Your task to perform on an android device: open app "PlayWell" (install if not already installed) Image 0: 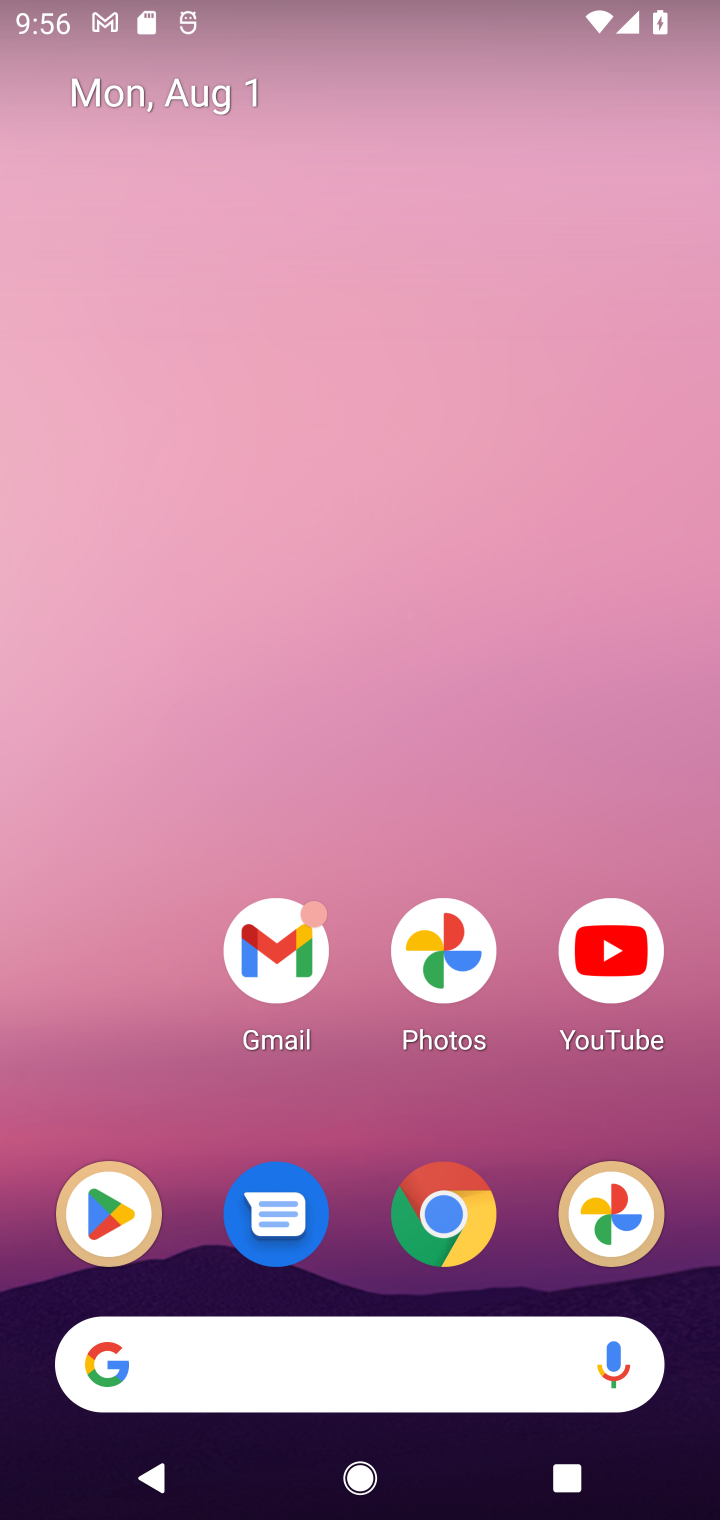
Step 0: press home button
Your task to perform on an android device: open app "PlayWell" (install if not already installed) Image 1: 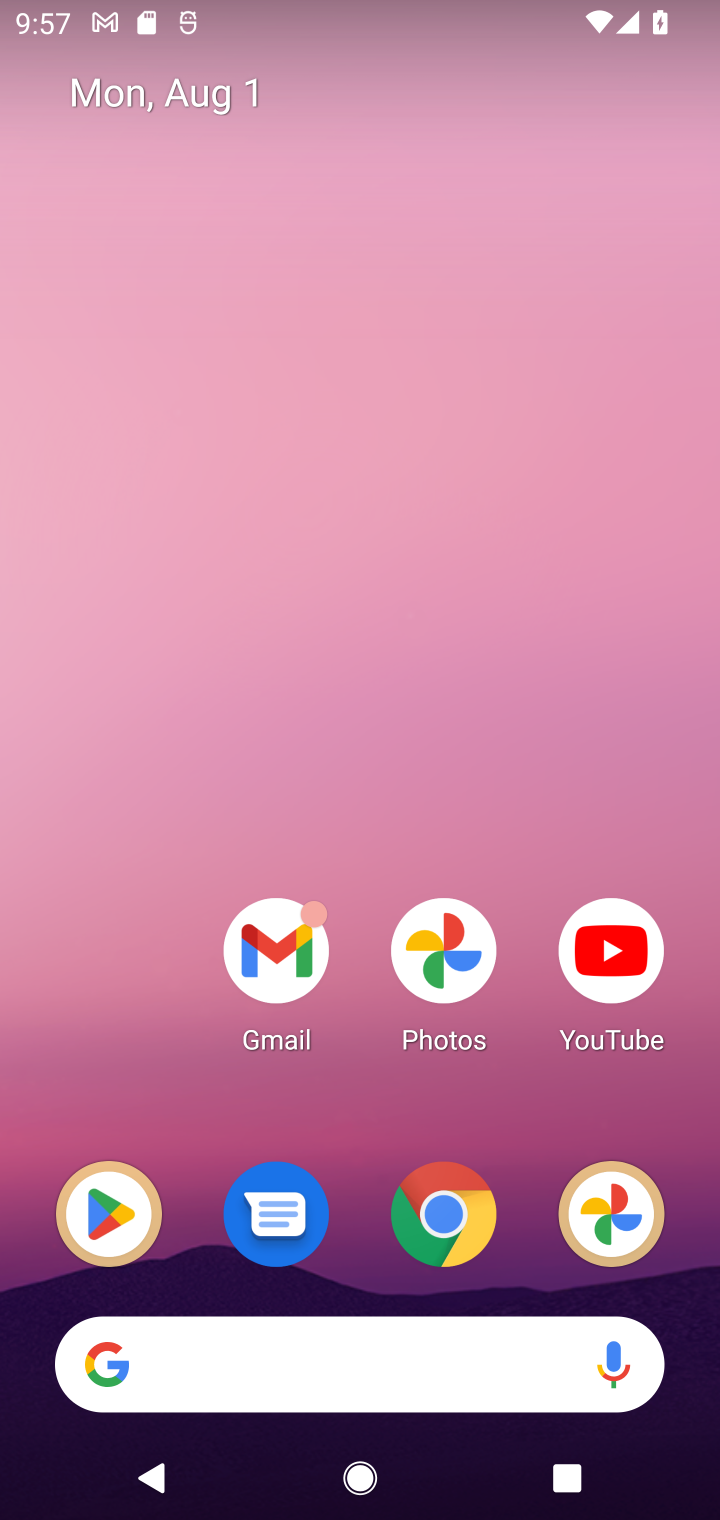
Step 1: click (86, 1213)
Your task to perform on an android device: open app "PlayWell" (install if not already installed) Image 2: 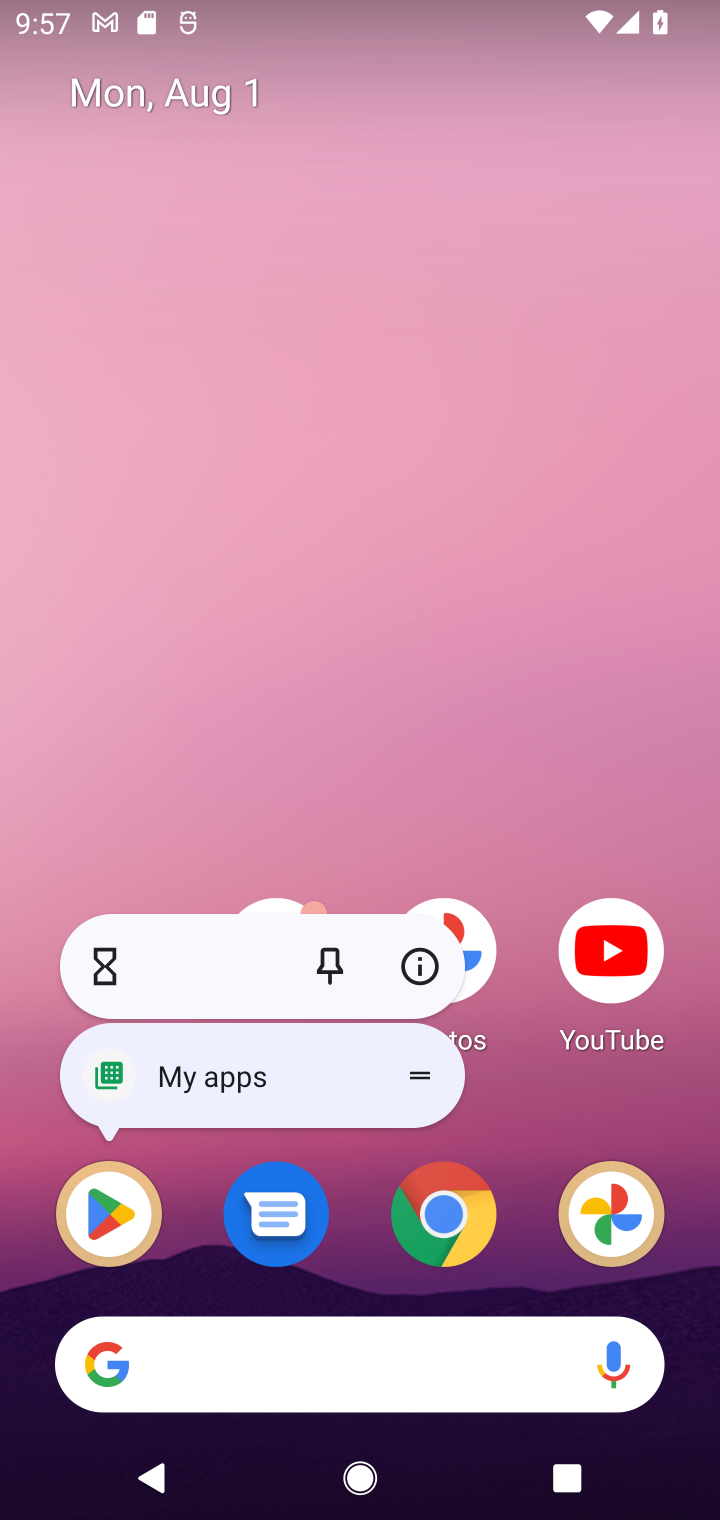
Step 2: click (97, 1213)
Your task to perform on an android device: open app "PlayWell" (install if not already installed) Image 3: 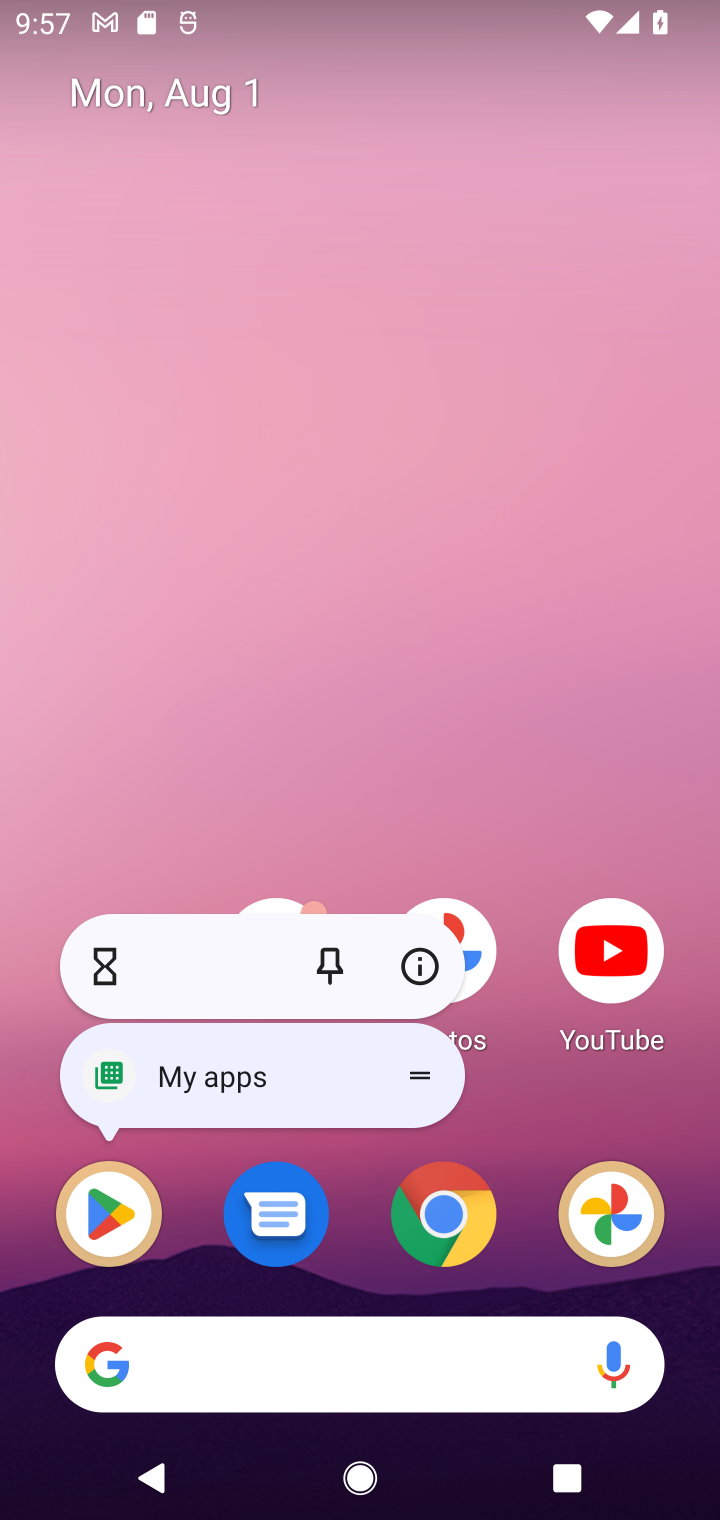
Step 3: click (99, 1213)
Your task to perform on an android device: open app "PlayWell" (install if not already installed) Image 4: 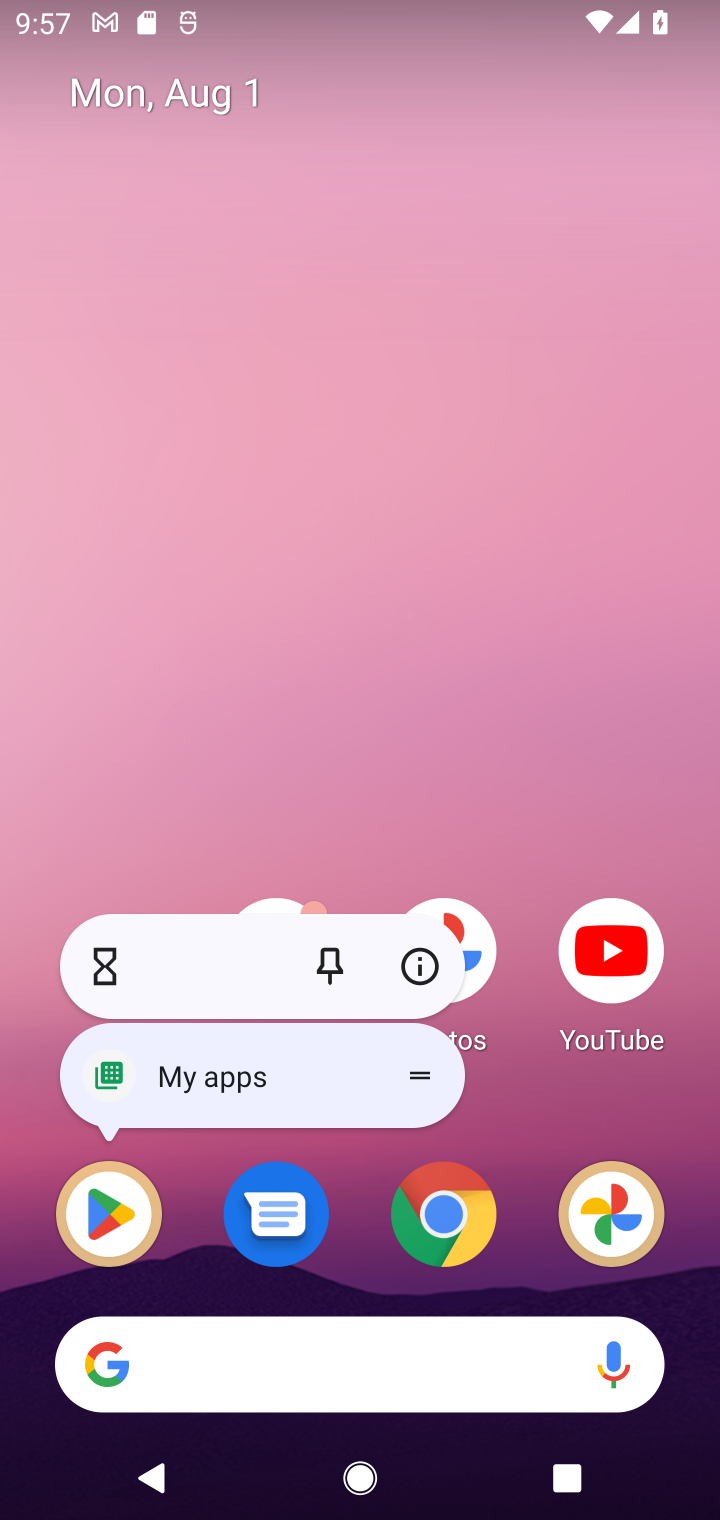
Step 4: click (97, 1215)
Your task to perform on an android device: open app "PlayWell" (install if not already installed) Image 5: 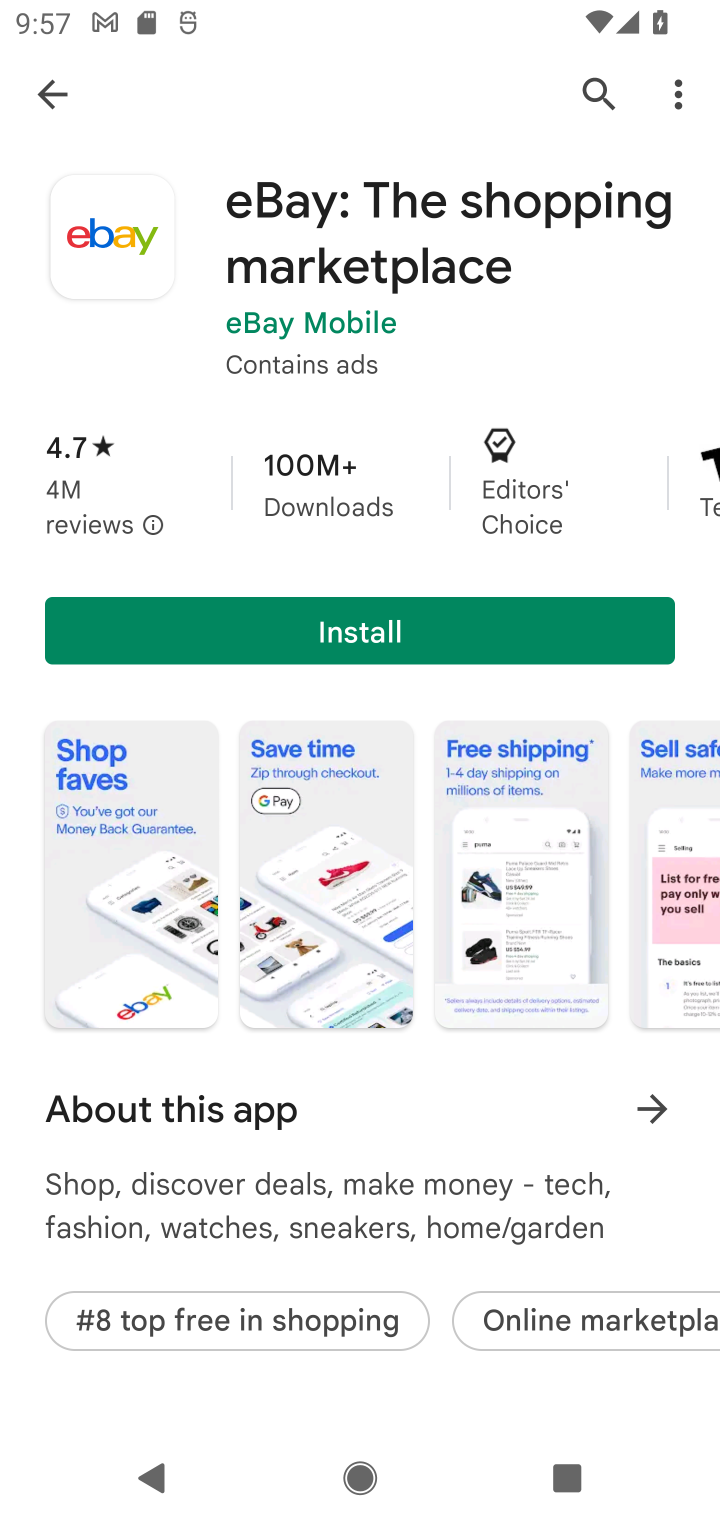
Step 5: click (594, 91)
Your task to perform on an android device: open app "PlayWell" (install if not already installed) Image 6: 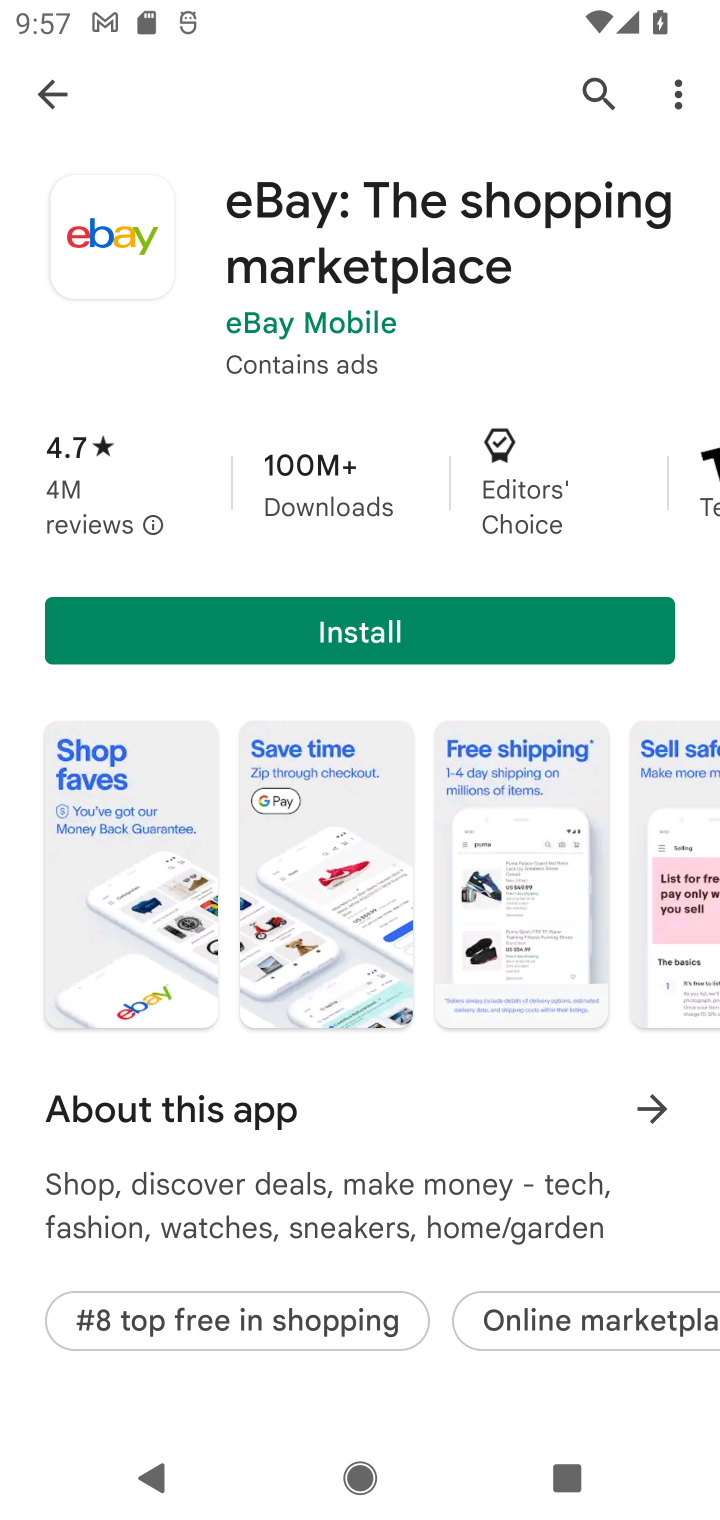
Step 6: type "PlayWell"
Your task to perform on an android device: open app "PlayWell" (install if not already installed) Image 7: 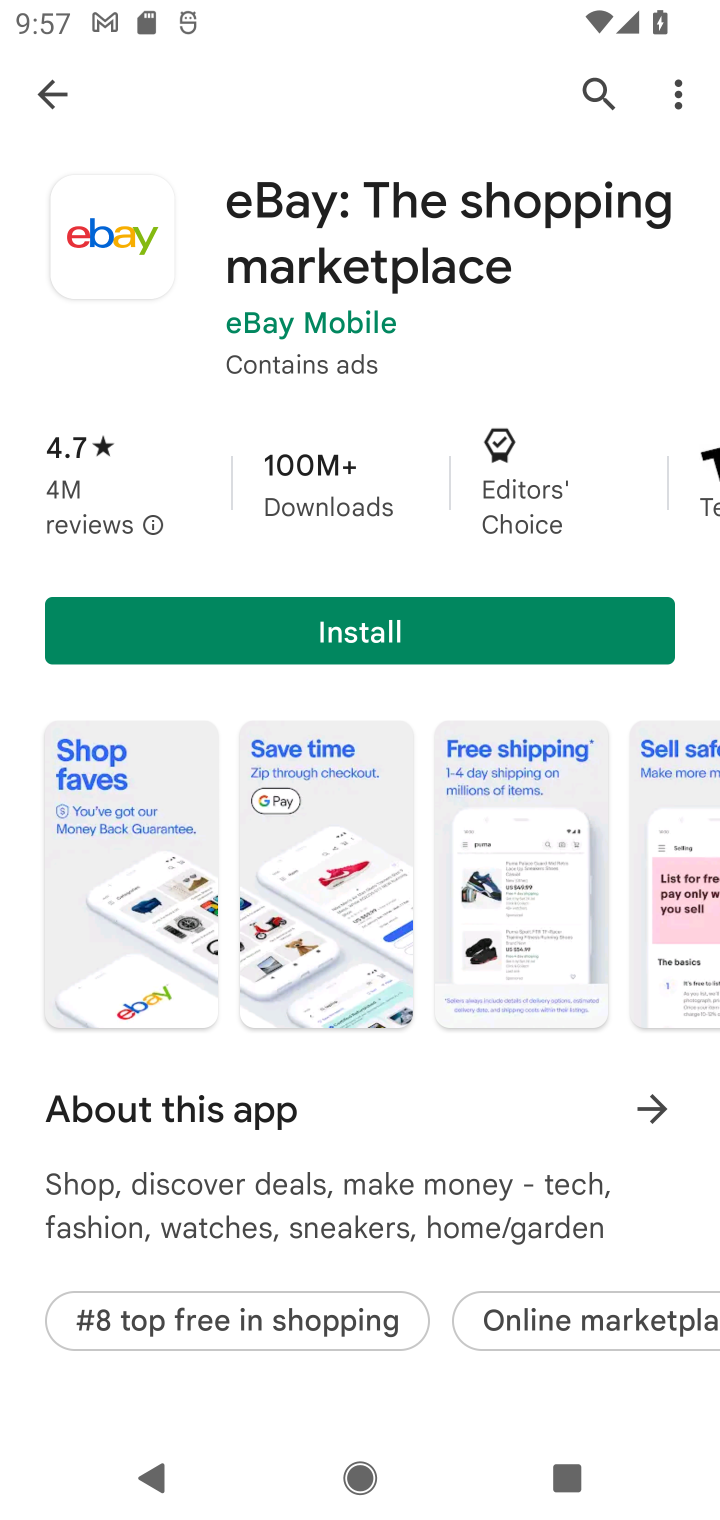
Step 7: click (586, 87)
Your task to perform on an android device: open app "PlayWell" (install if not already installed) Image 8: 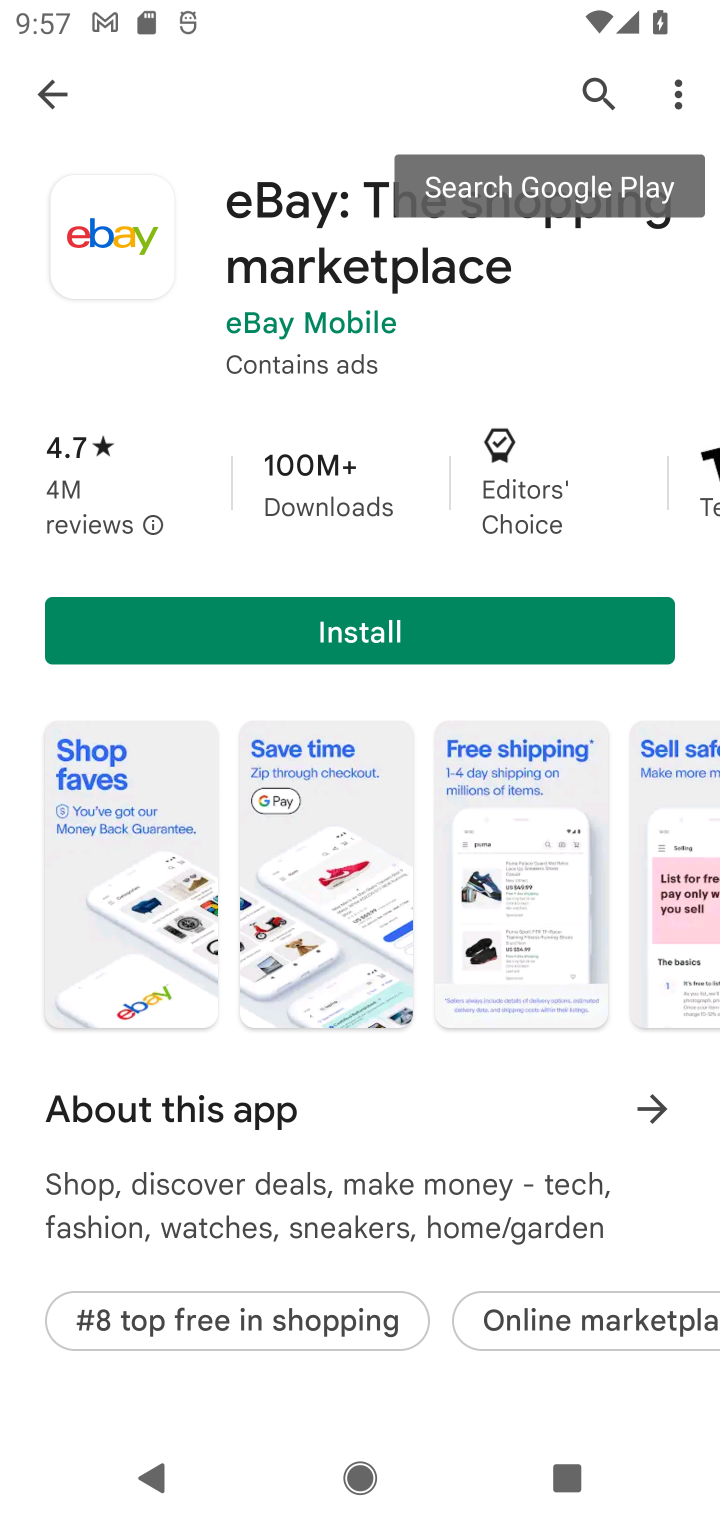
Step 8: click (584, 89)
Your task to perform on an android device: open app "PlayWell" (install if not already installed) Image 9: 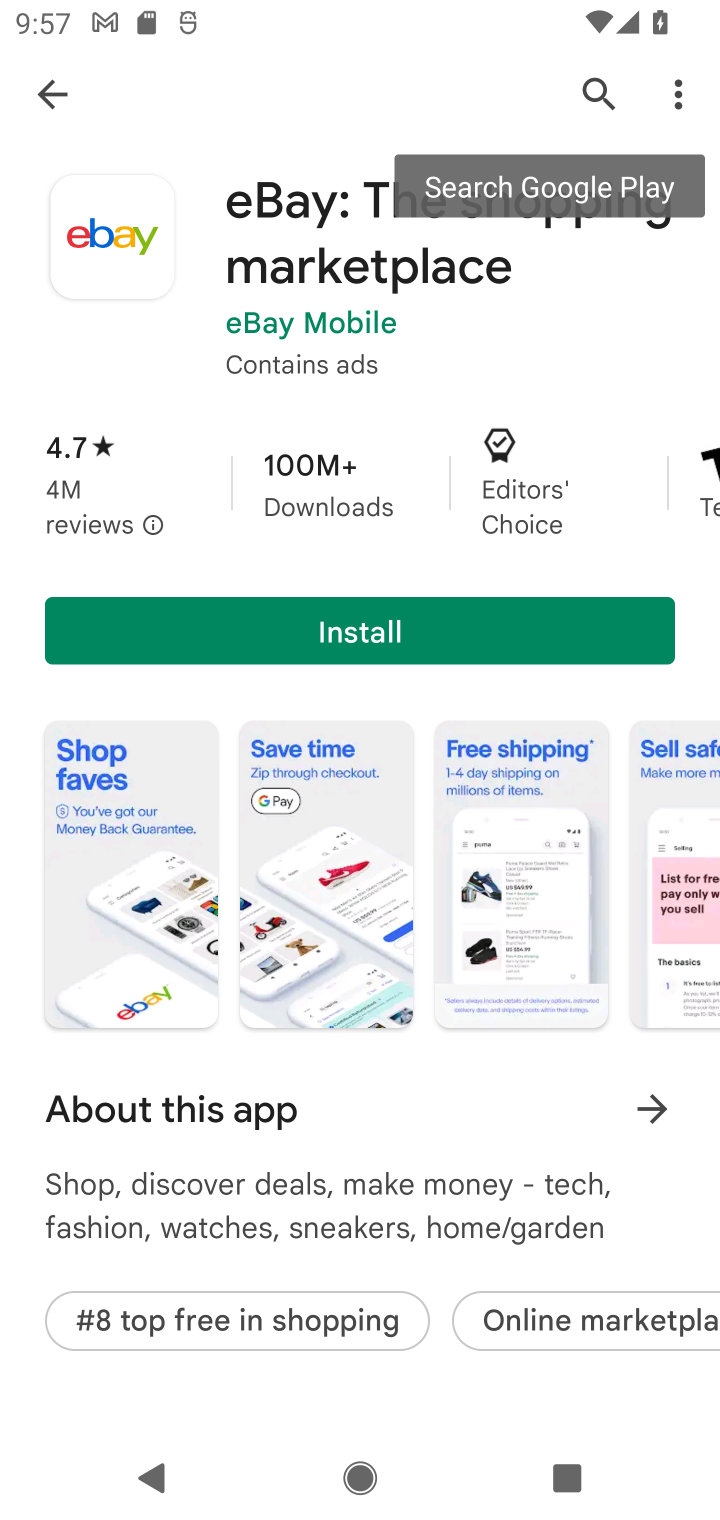
Step 9: click (56, 92)
Your task to perform on an android device: open app "PlayWell" (install if not already installed) Image 10: 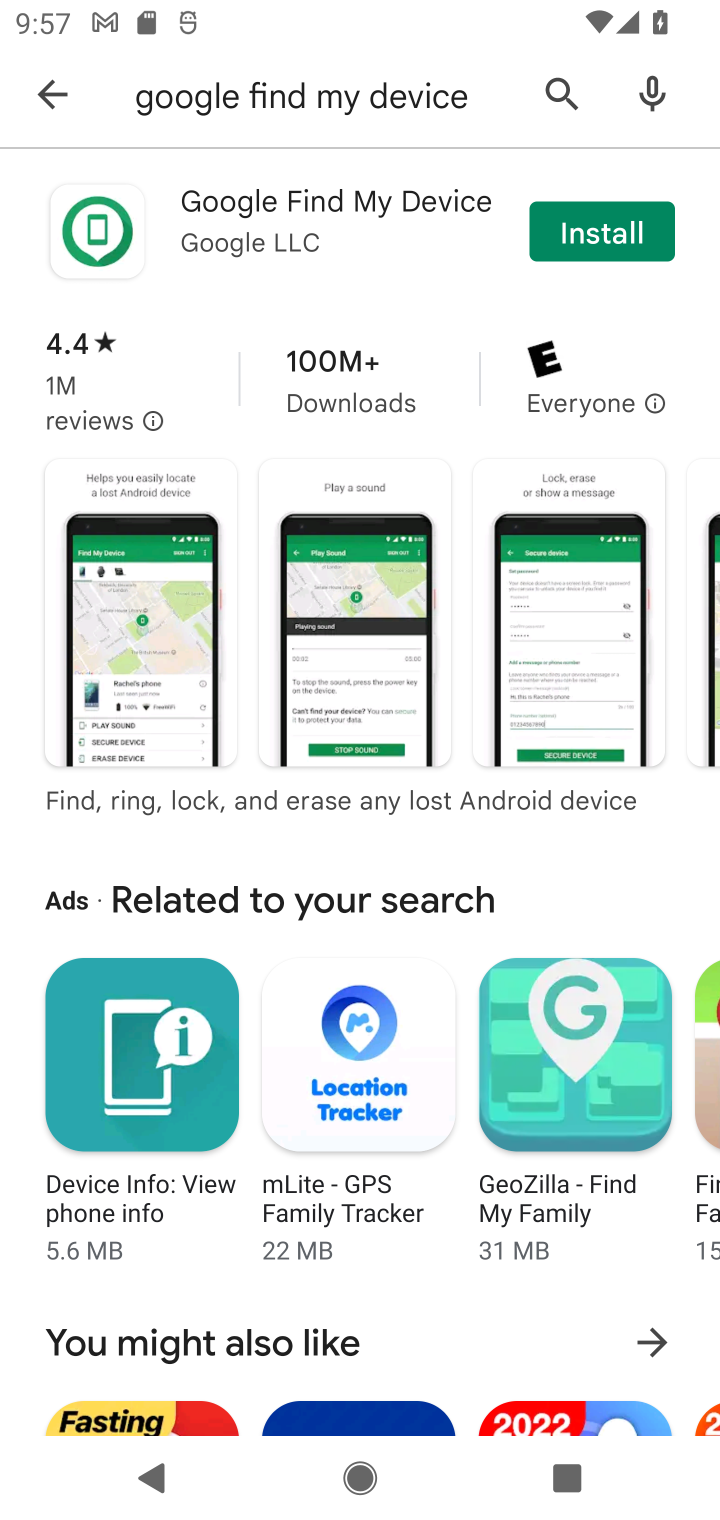
Step 10: click (548, 101)
Your task to perform on an android device: open app "PlayWell" (install if not already installed) Image 11: 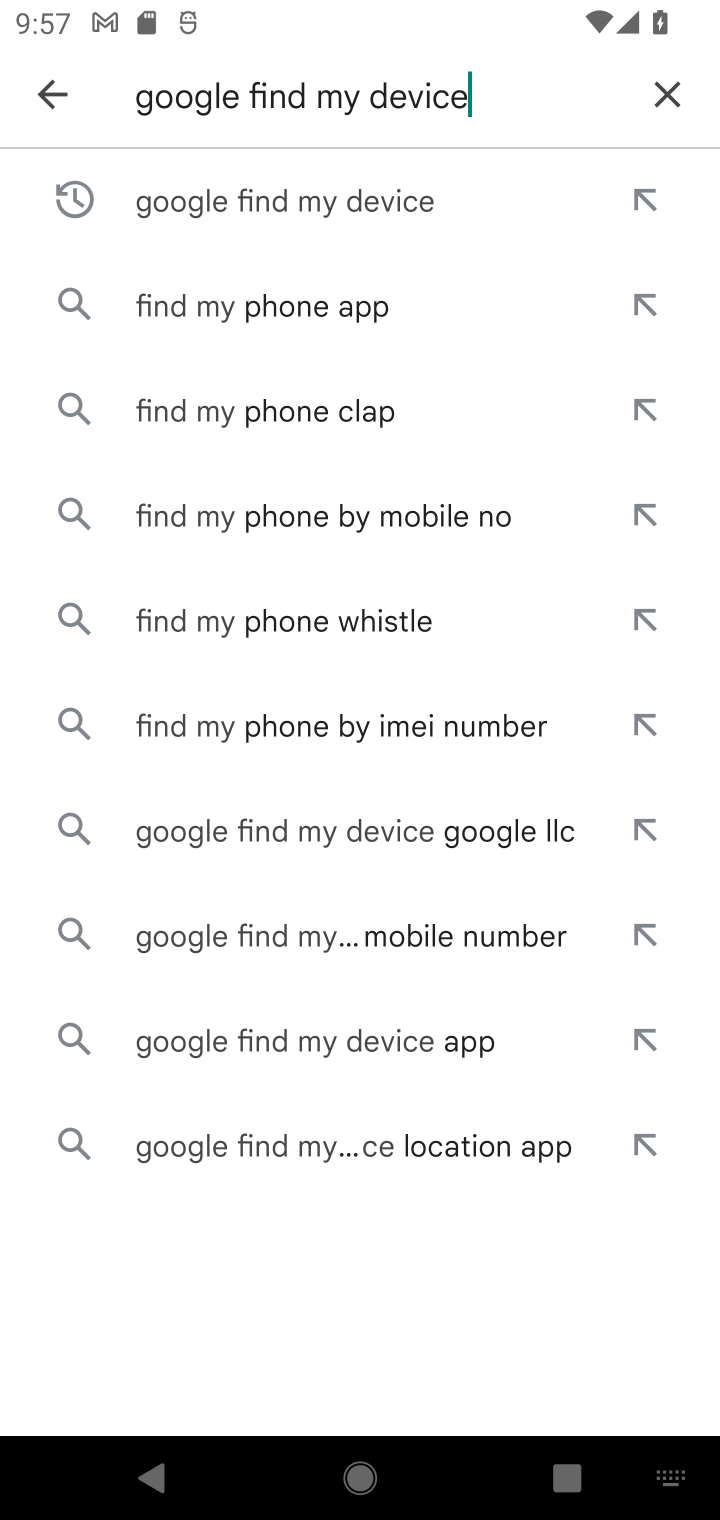
Step 11: click (661, 84)
Your task to perform on an android device: open app "PlayWell" (install if not already installed) Image 12: 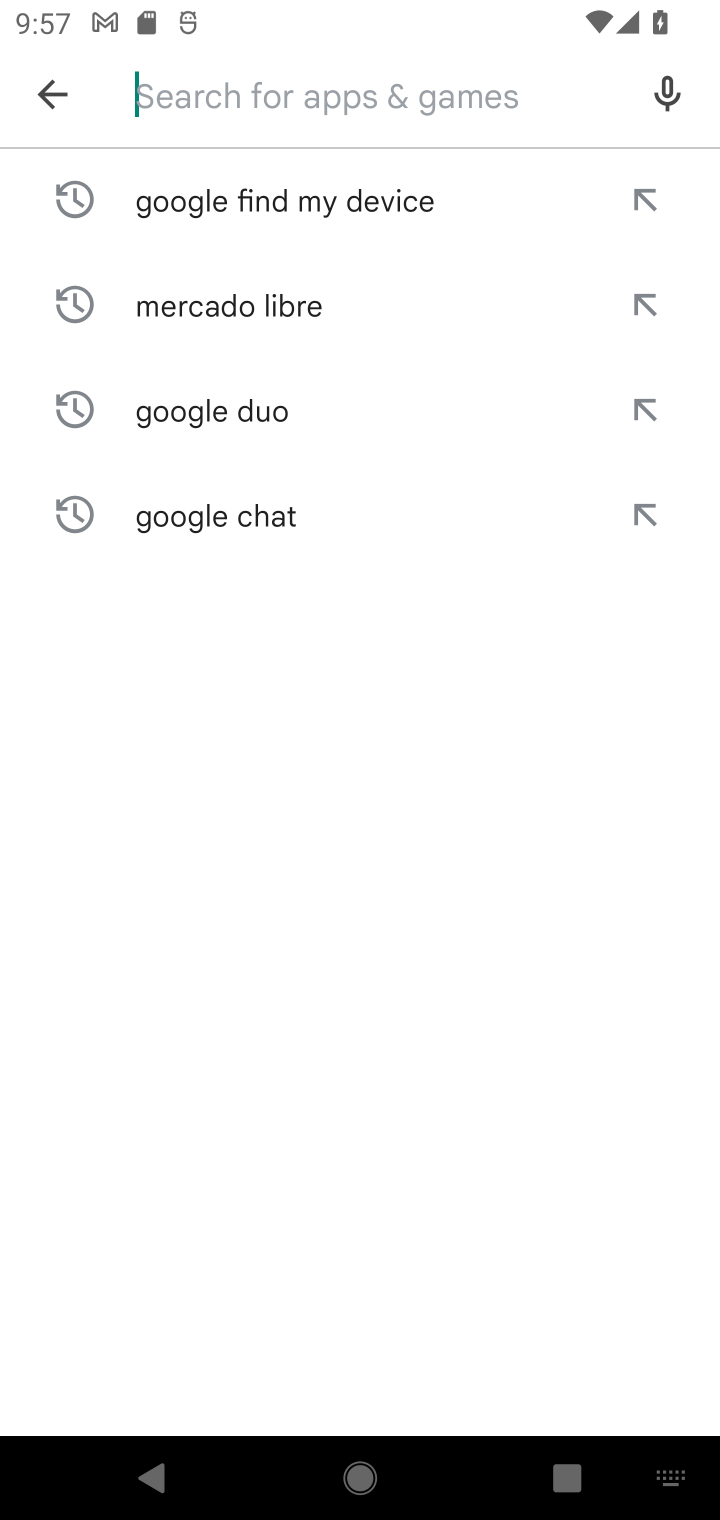
Step 12: type "PlayWell"
Your task to perform on an android device: open app "PlayWell" (install if not already installed) Image 13: 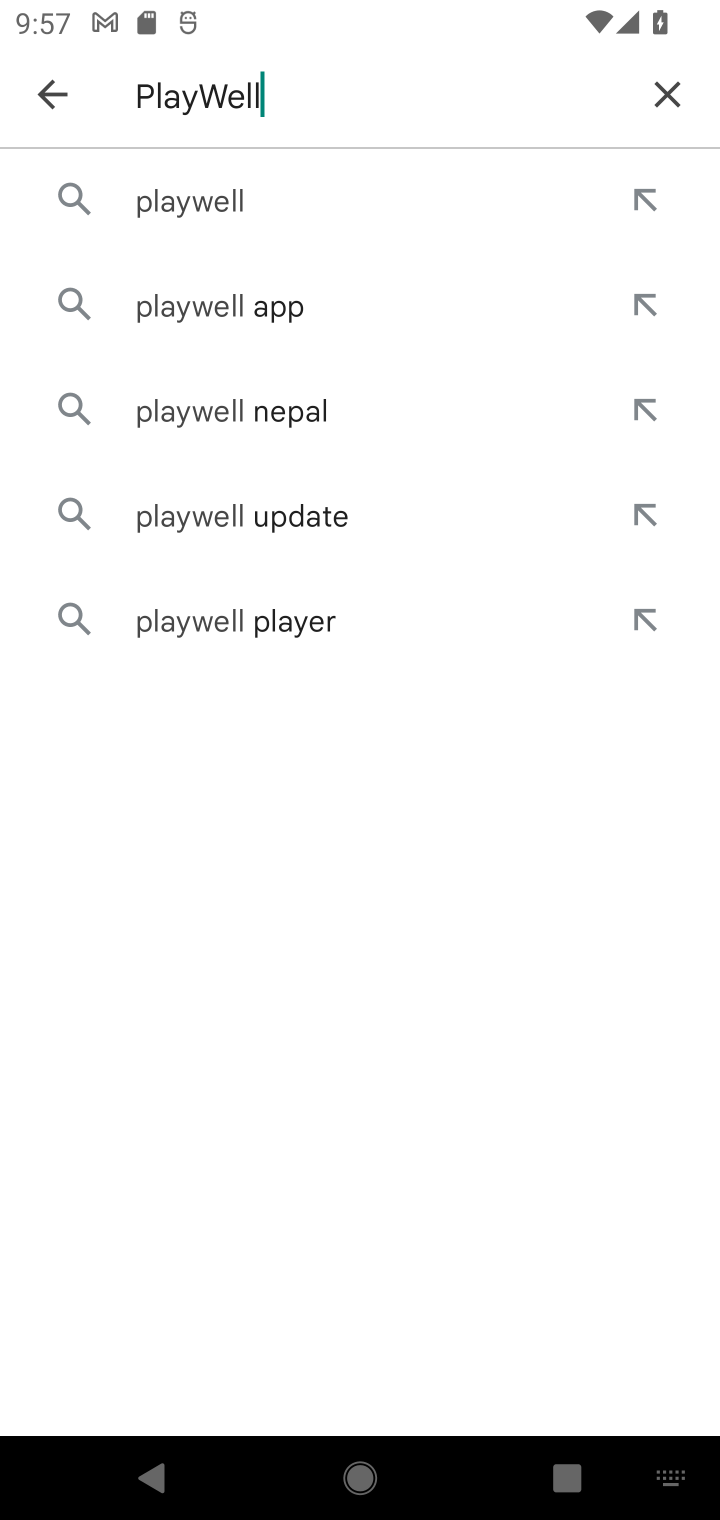
Step 13: click (223, 195)
Your task to perform on an android device: open app "PlayWell" (install if not already installed) Image 14: 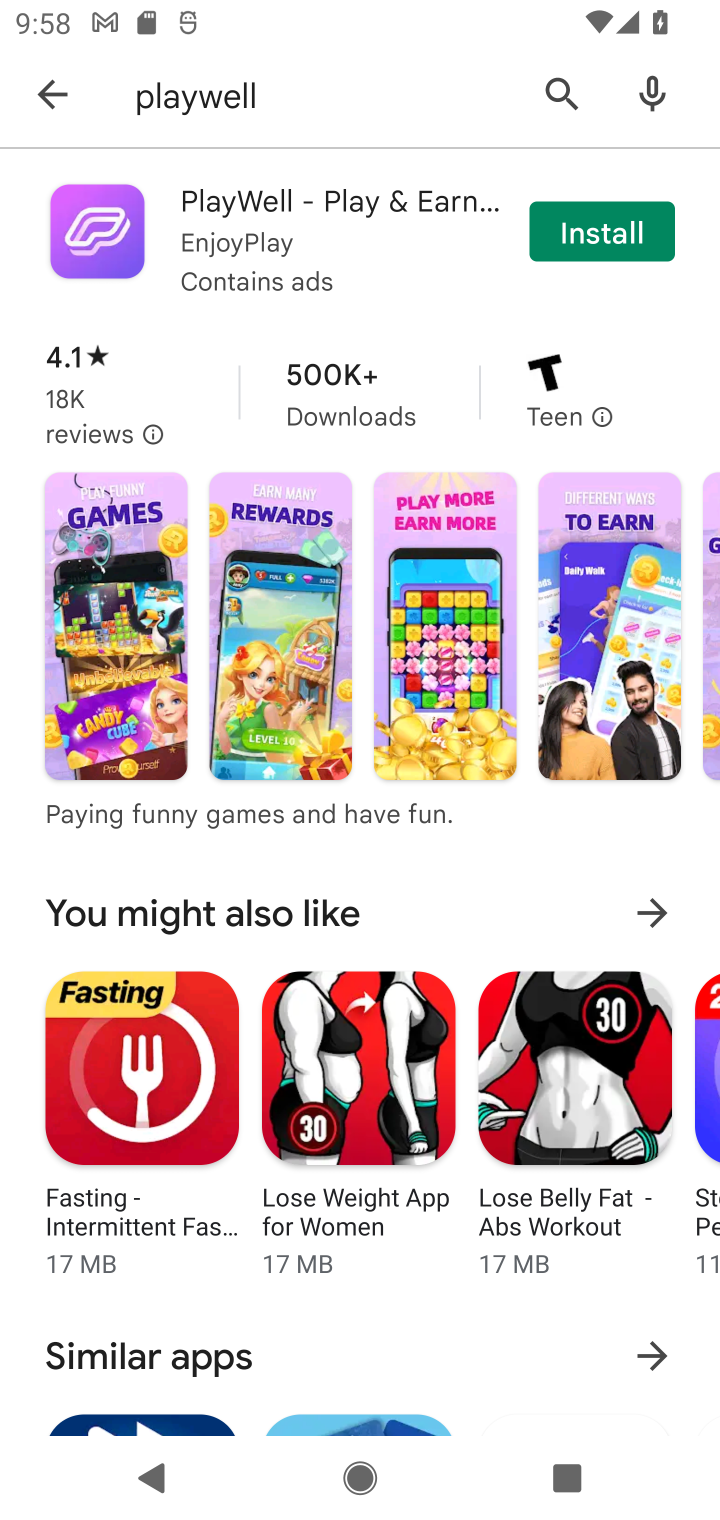
Step 14: click (633, 229)
Your task to perform on an android device: open app "PlayWell" (install if not already installed) Image 15: 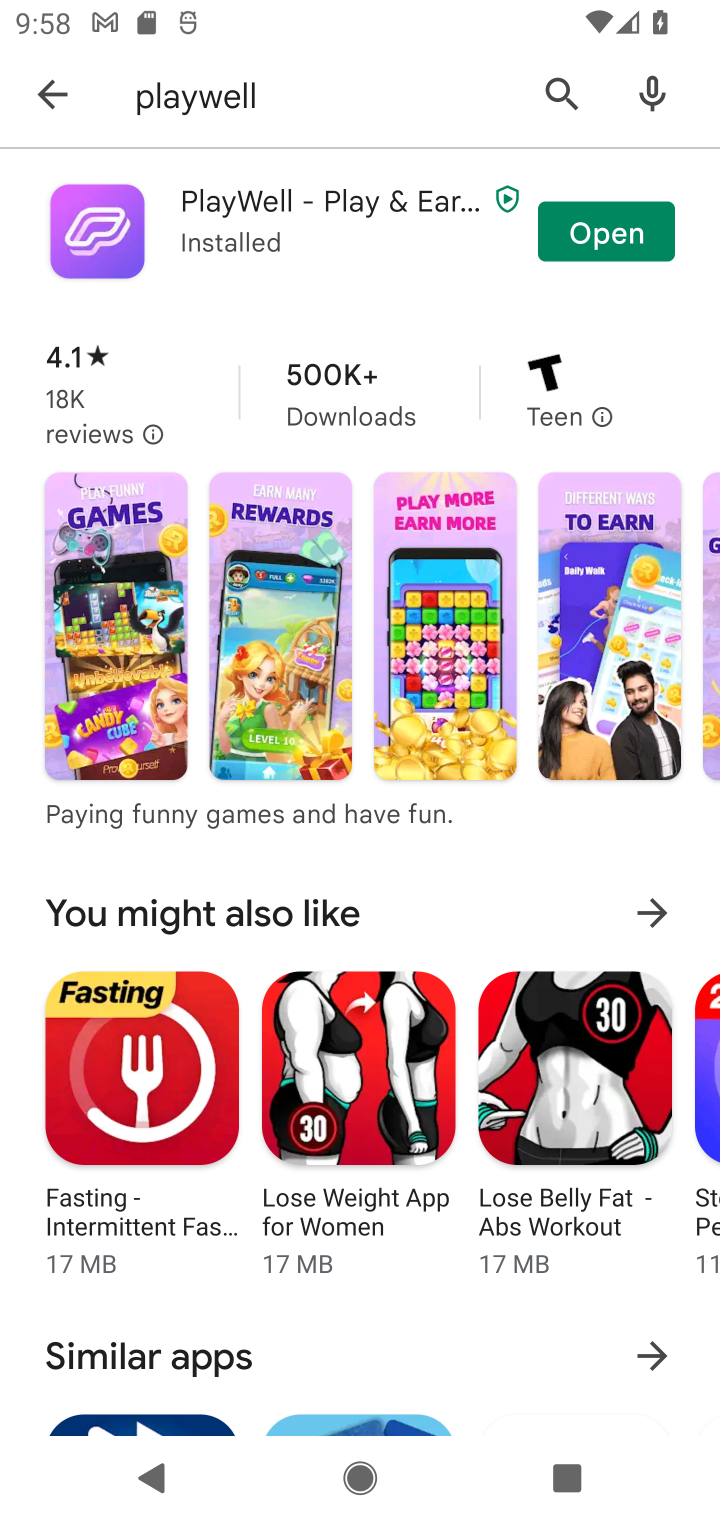
Step 15: click (633, 233)
Your task to perform on an android device: open app "PlayWell" (install if not already installed) Image 16: 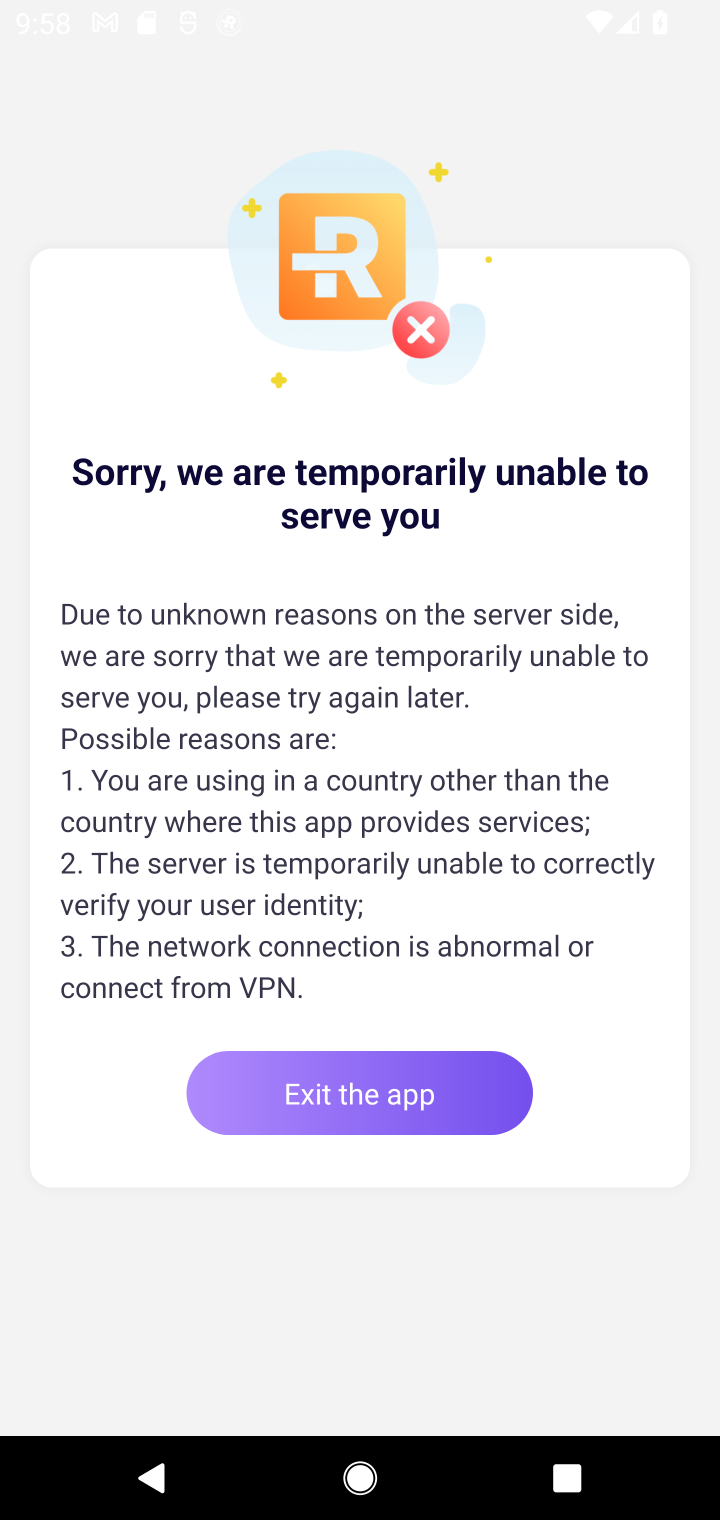
Step 16: task complete